Your task to perform on an android device: toggle notification dots Image 0: 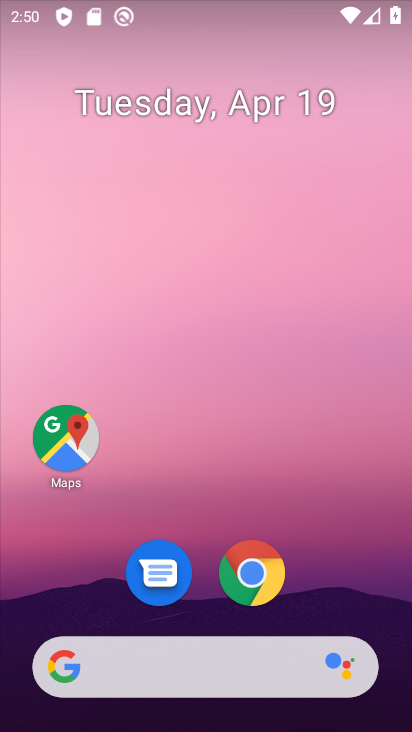
Step 0: drag from (313, 574) to (318, 176)
Your task to perform on an android device: toggle notification dots Image 1: 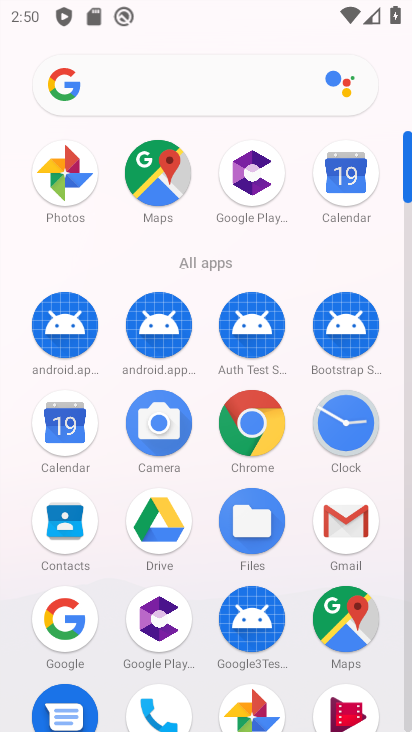
Step 1: drag from (299, 658) to (309, 261)
Your task to perform on an android device: toggle notification dots Image 2: 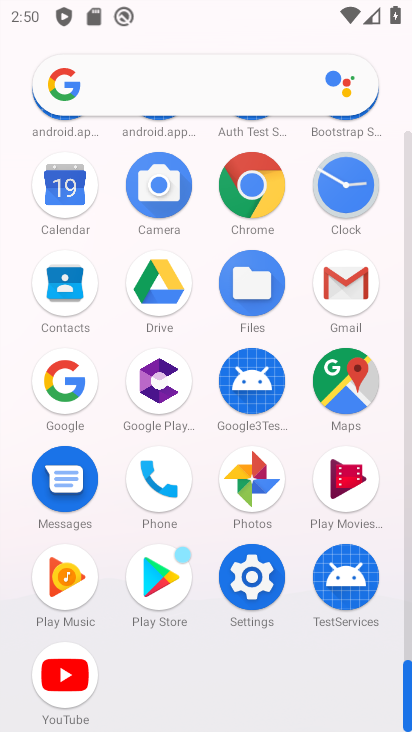
Step 2: click (261, 579)
Your task to perform on an android device: toggle notification dots Image 3: 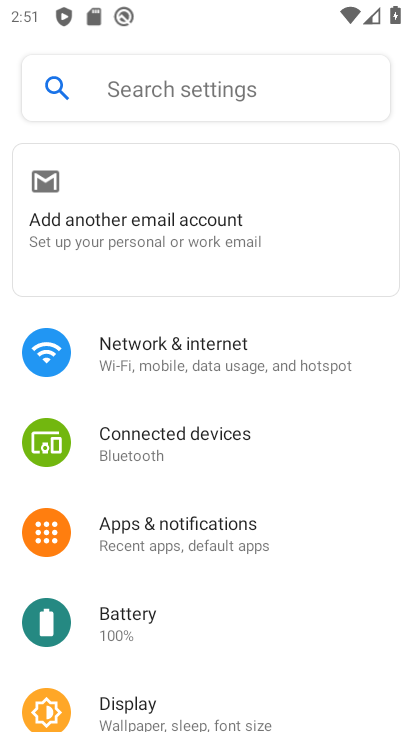
Step 3: click (233, 543)
Your task to perform on an android device: toggle notification dots Image 4: 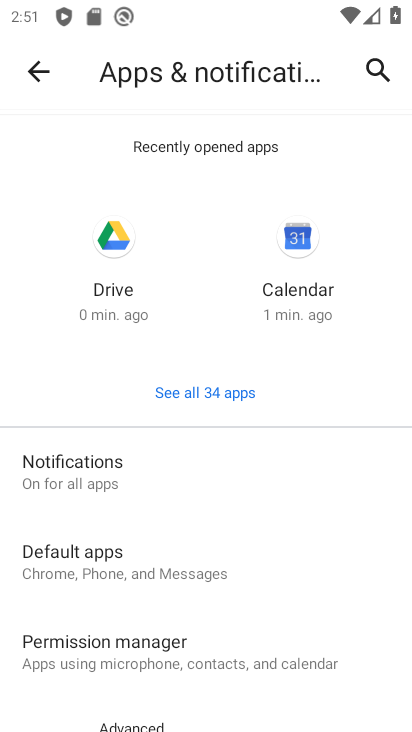
Step 4: click (113, 487)
Your task to perform on an android device: toggle notification dots Image 5: 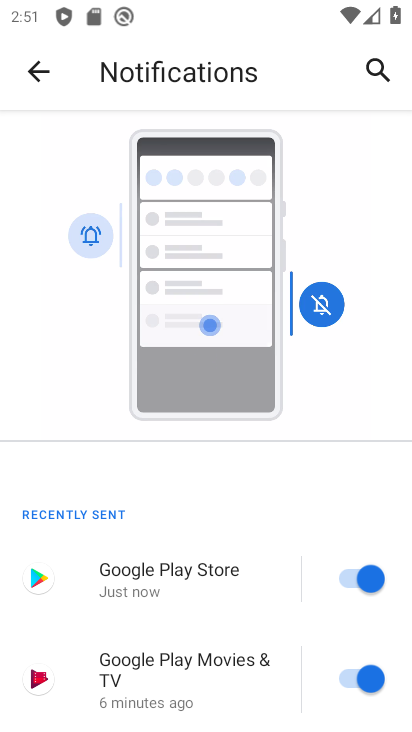
Step 5: drag from (206, 691) to (213, 375)
Your task to perform on an android device: toggle notification dots Image 6: 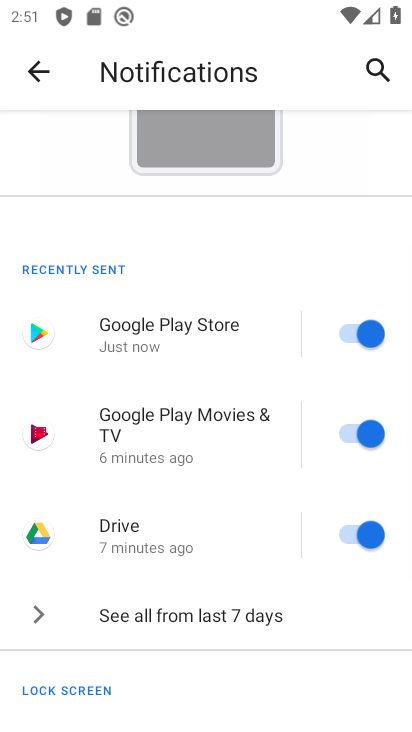
Step 6: drag from (200, 654) to (212, 320)
Your task to perform on an android device: toggle notification dots Image 7: 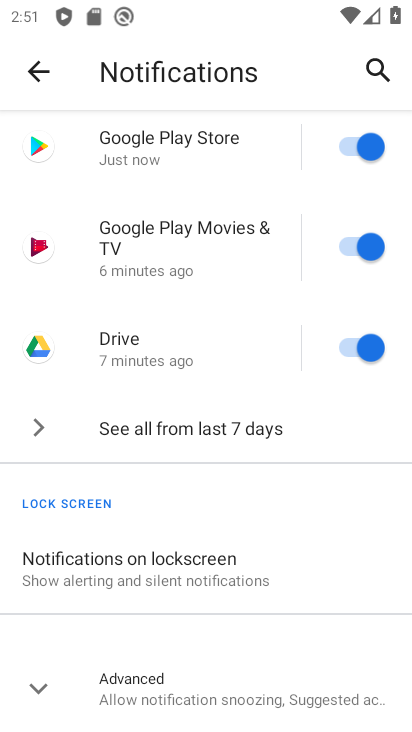
Step 7: click (35, 691)
Your task to perform on an android device: toggle notification dots Image 8: 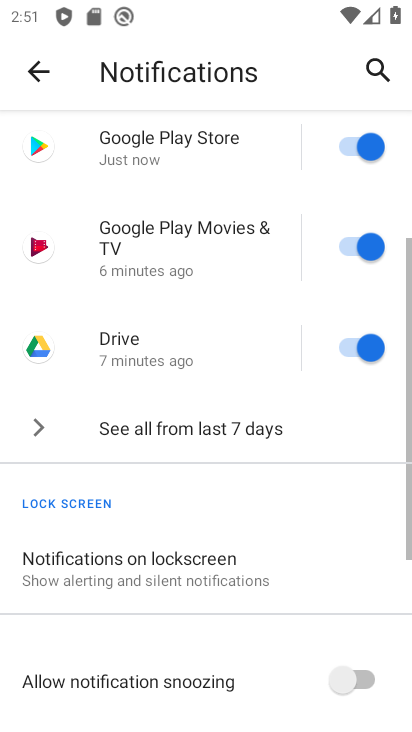
Step 8: drag from (137, 710) to (174, 369)
Your task to perform on an android device: toggle notification dots Image 9: 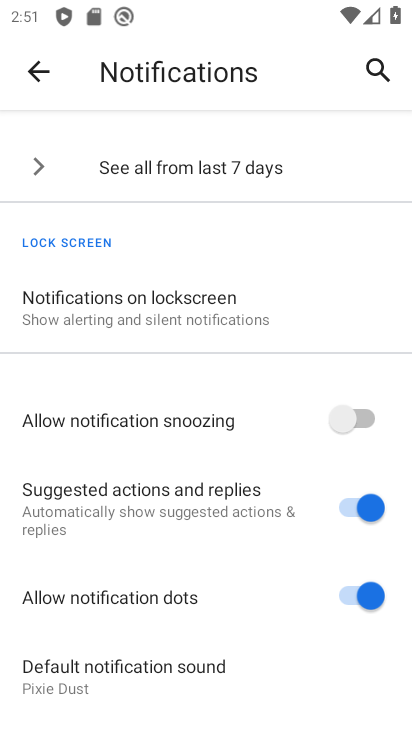
Step 9: click (376, 596)
Your task to perform on an android device: toggle notification dots Image 10: 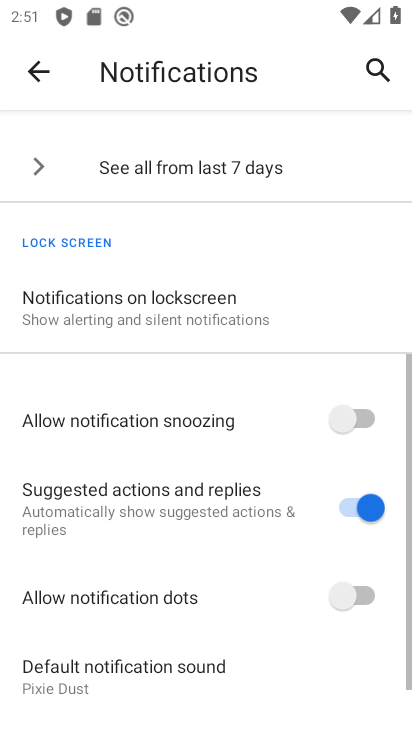
Step 10: task complete